Your task to perform on an android device: Search for Italian restaurants on Maps Image 0: 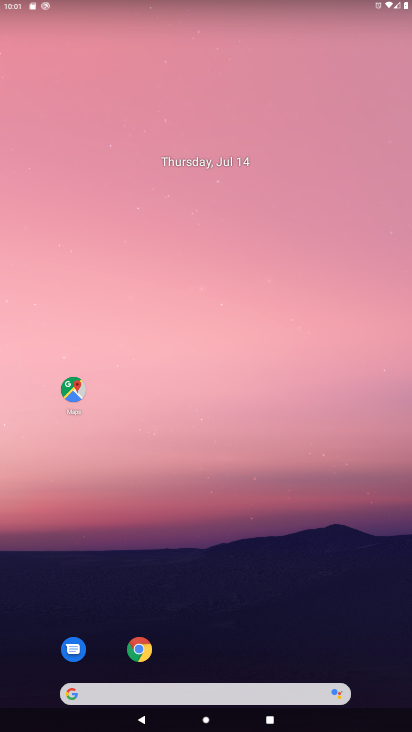
Step 0: click (63, 391)
Your task to perform on an android device: Search for Italian restaurants on Maps Image 1: 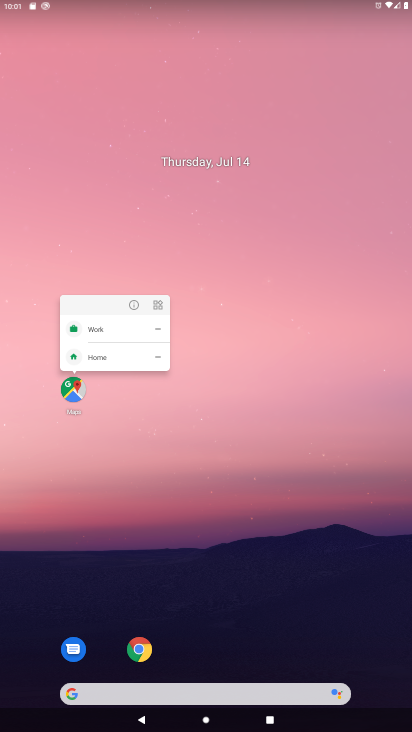
Step 1: click (63, 391)
Your task to perform on an android device: Search for Italian restaurants on Maps Image 2: 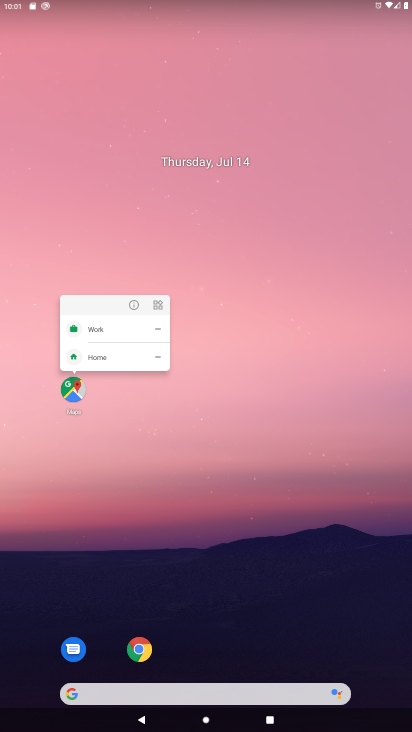
Step 2: click (63, 391)
Your task to perform on an android device: Search for Italian restaurants on Maps Image 3: 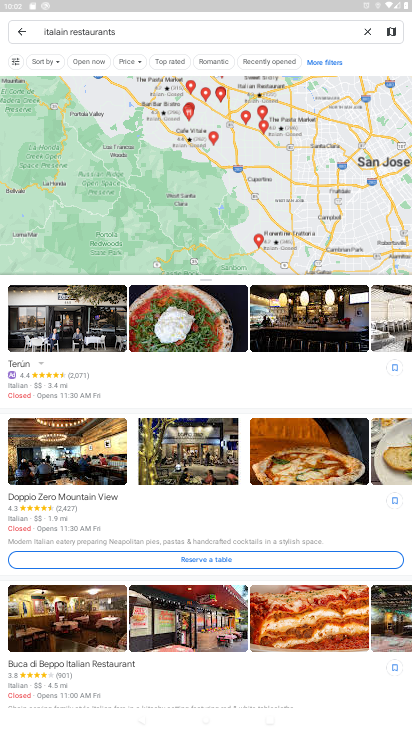
Step 3: task complete